Your task to perform on an android device: Open Yahoo.com Image 0: 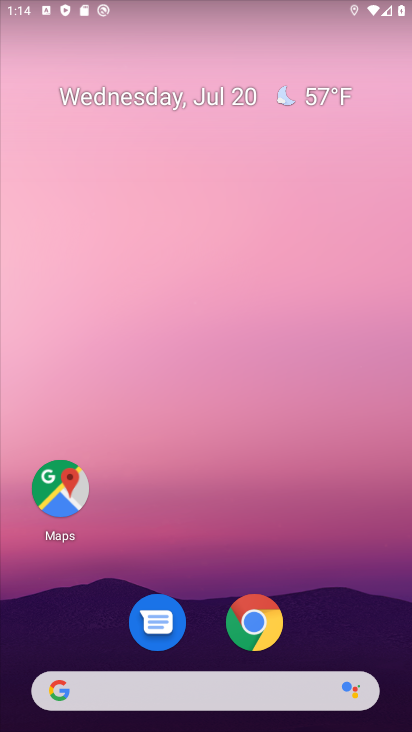
Step 0: click (271, 609)
Your task to perform on an android device: Open Yahoo.com Image 1: 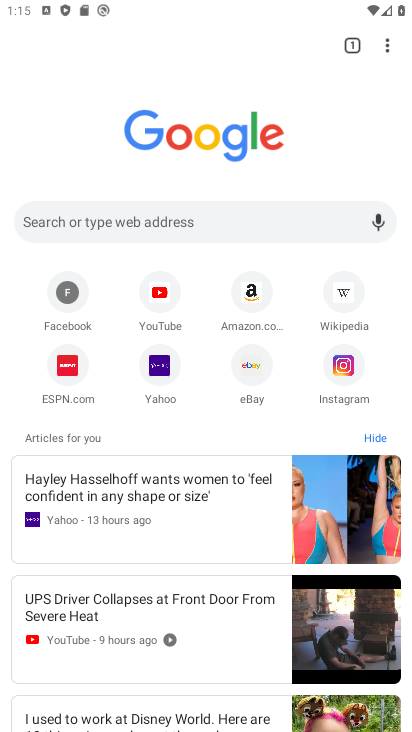
Step 1: click (161, 375)
Your task to perform on an android device: Open Yahoo.com Image 2: 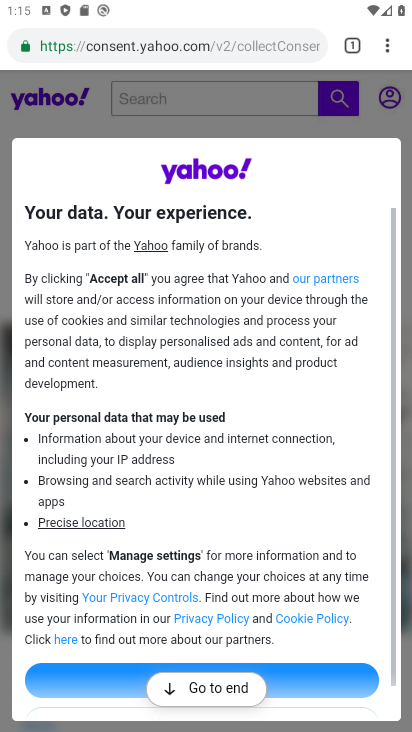
Step 2: task complete